Your task to perform on an android device: open app "Instagram" Image 0: 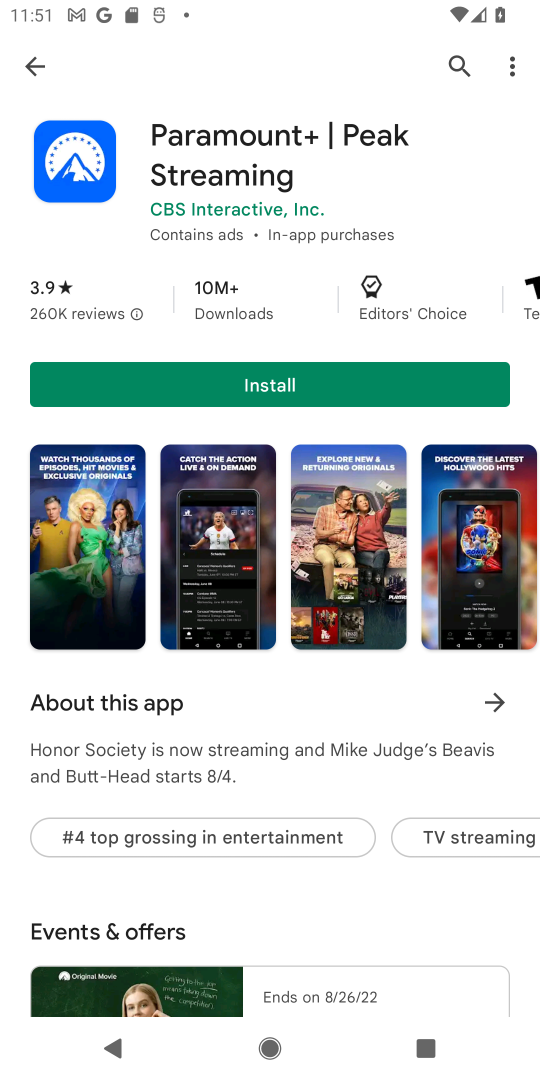
Step 0: click (443, 69)
Your task to perform on an android device: open app "Instagram" Image 1: 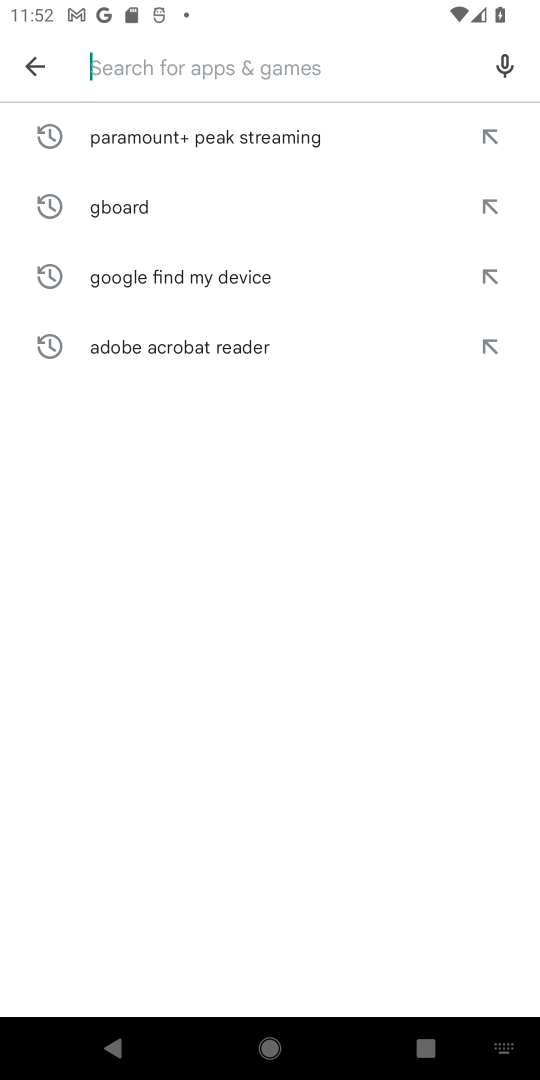
Step 1: type "instagra"
Your task to perform on an android device: open app "Instagram" Image 2: 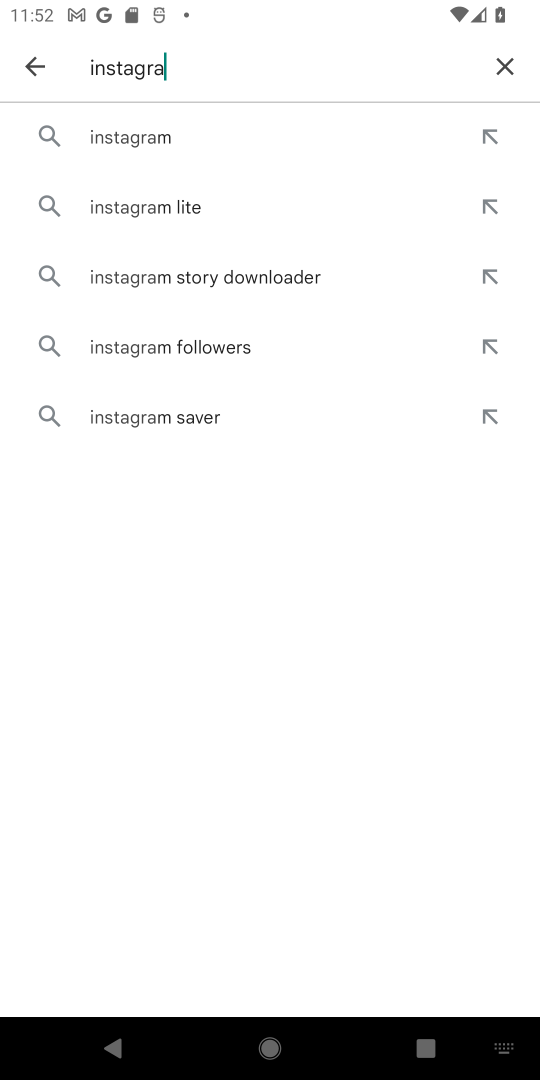
Step 2: click (208, 138)
Your task to perform on an android device: open app "Instagram" Image 3: 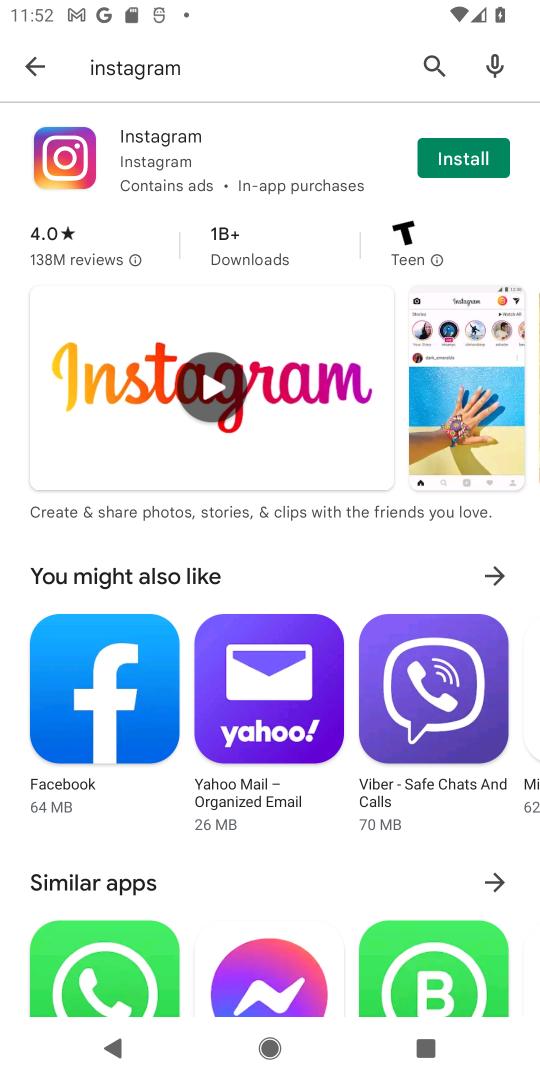
Step 3: task complete